Your task to perform on an android device: visit the assistant section in the google photos Image 0: 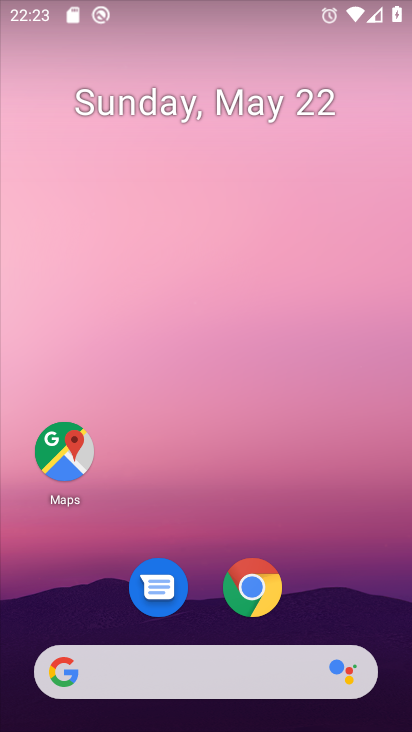
Step 0: drag from (214, 481) to (244, 0)
Your task to perform on an android device: visit the assistant section in the google photos Image 1: 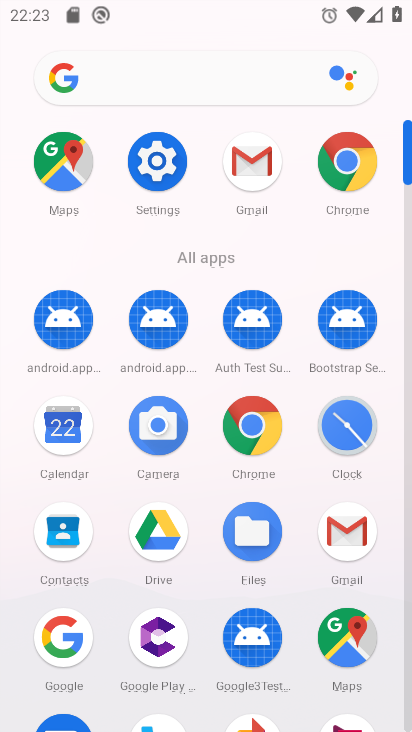
Step 1: drag from (212, 482) to (229, 196)
Your task to perform on an android device: visit the assistant section in the google photos Image 2: 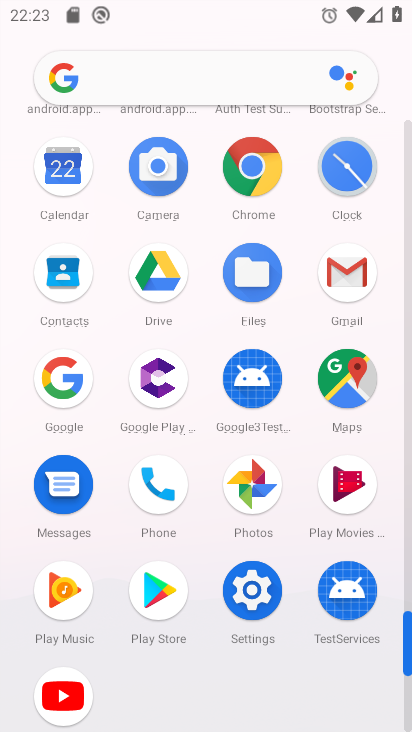
Step 2: click (244, 466)
Your task to perform on an android device: visit the assistant section in the google photos Image 3: 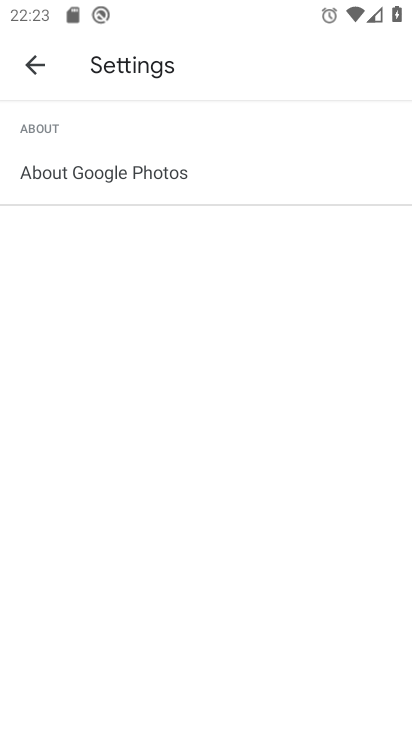
Step 3: click (43, 60)
Your task to perform on an android device: visit the assistant section in the google photos Image 4: 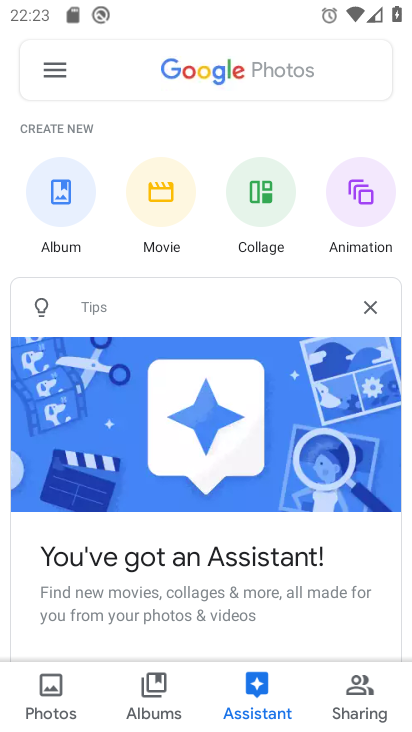
Step 4: click (262, 699)
Your task to perform on an android device: visit the assistant section in the google photos Image 5: 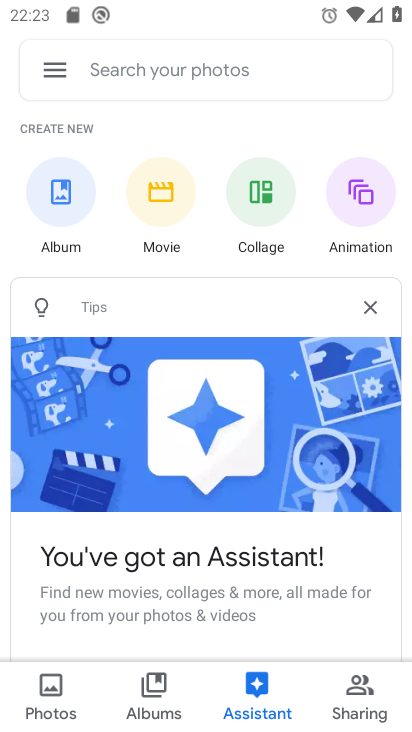
Step 5: task complete